Your task to perform on an android device: Go to Maps Image 0: 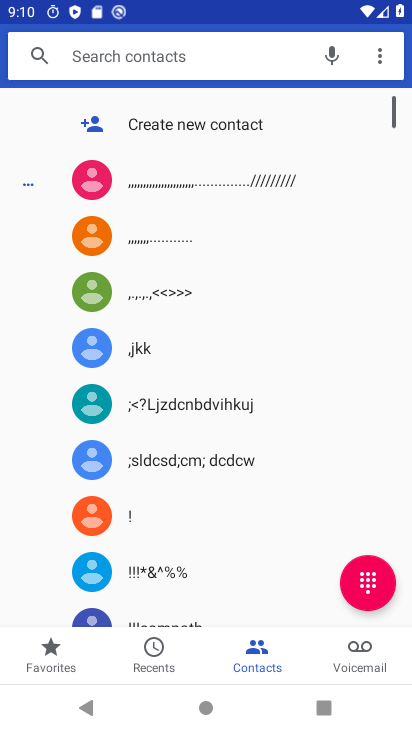
Step 0: press home button
Your task to perform on an android device: Go to Maps Image 1: 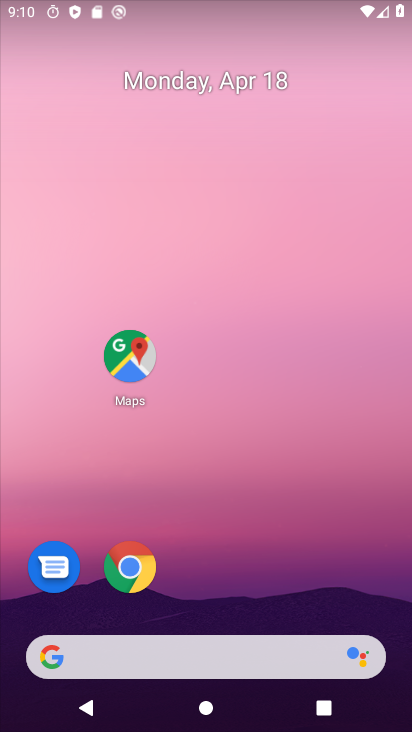
Step 1: drag from (245, 687) to (241, 470)
Your task to perform on an android device: Go to Maps Image 2: 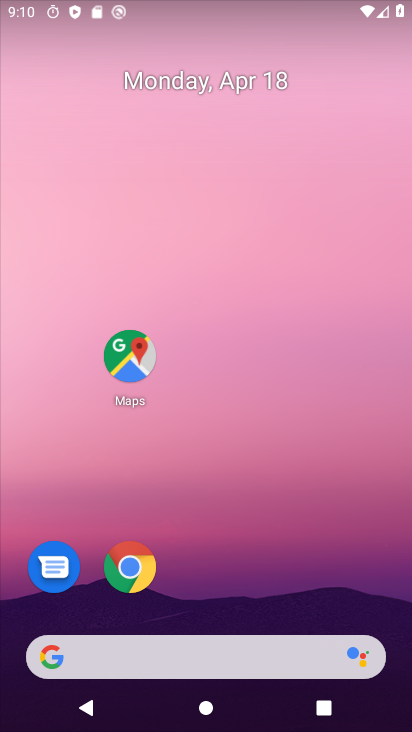
Step 2: drag from (229, 674) to (331, 307)
Your task to perform on an android device: Go to Maps Image 3: 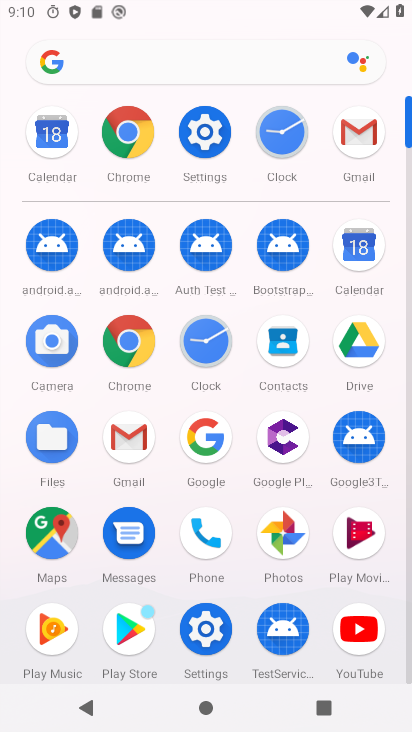
Step 3: click (63, 527)
Your task to perform on an android device: Go to Maps Image 4: 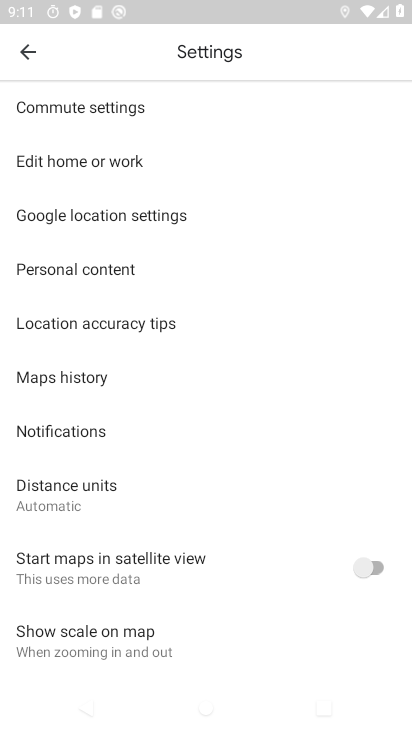
Step 4: click (19, 65)
Your task to perform on an android device: Go to Maps Image 5: 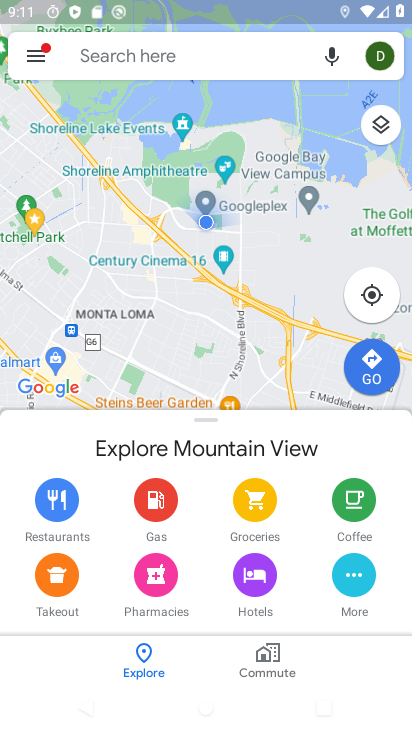
Step 5: click (169, 36)
Your task to perform on an android device: Go to Maps Image 6: 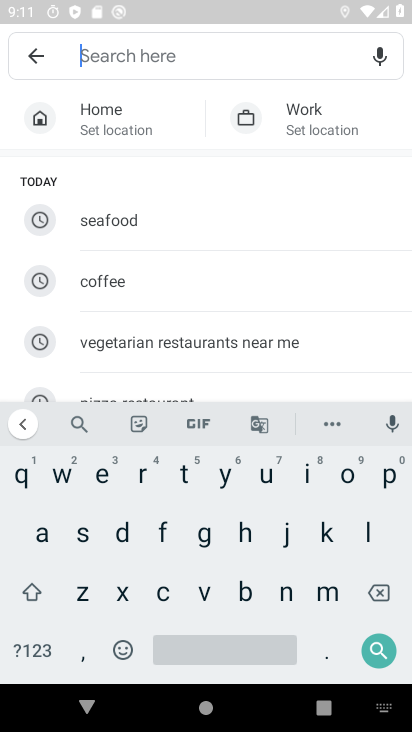
Step 6: click (27, 59)
Your task to perform on an android device: Go to Maps Image 7: 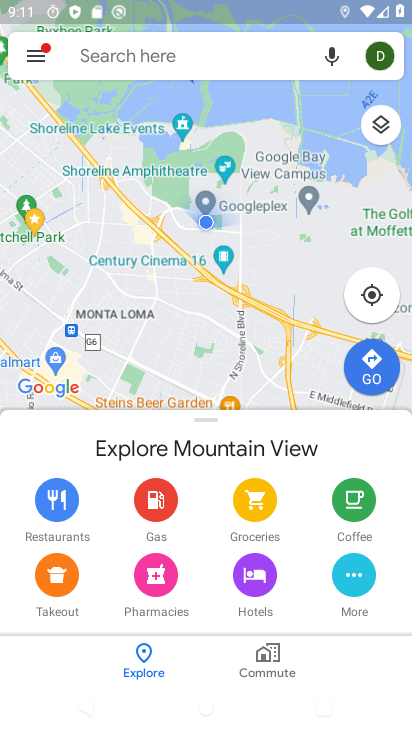
Step 7: task complete